Your task to perform on an android device: turn on priority inbox in the gmail app Image 0: 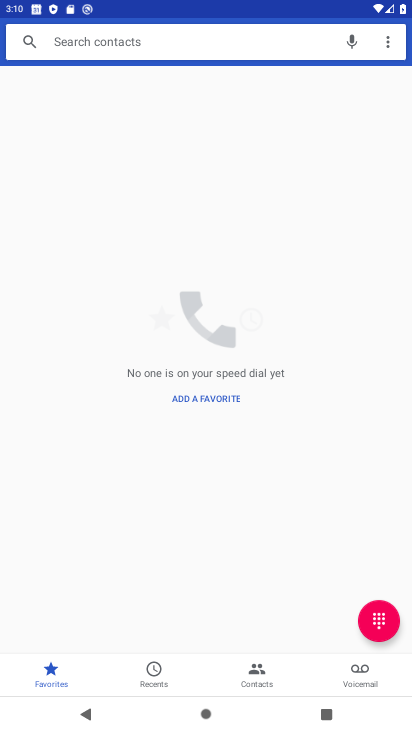
Step 0: press home button
Your task to perform on an android device: turn on priority inbox in the gmail app Image 1: 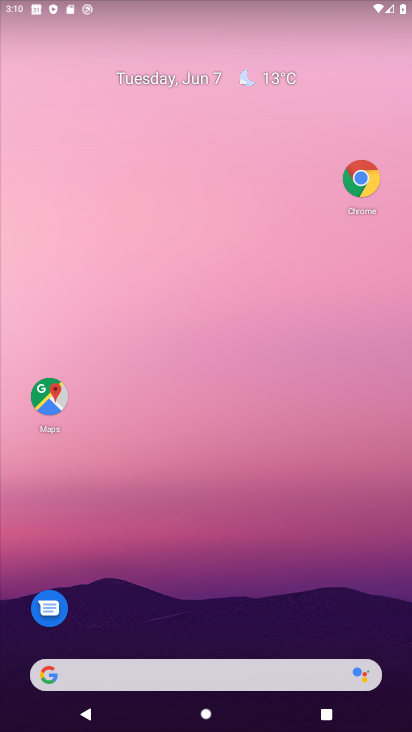
Step 1: drag from (178, 640) to (284, 175)
Your task to perform on an android device: turn on priority inbox in the gmail app Image 2: 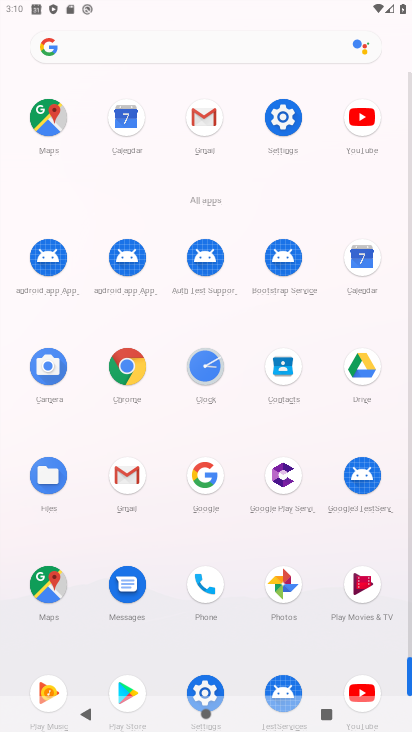
Step 2: click (134, 461)
Your task to perform on an android device: turn on priority inbox in the gmail app Image 3: 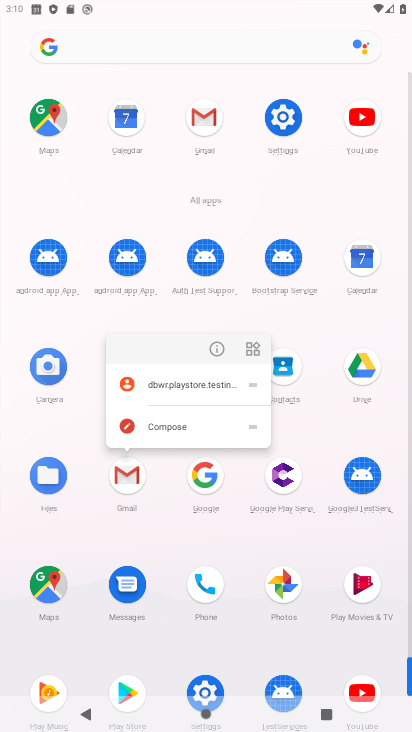
Step 3: click (139, 475)
Your task to perform on an android device: turn on priority inbox in the gmail app Image 4: 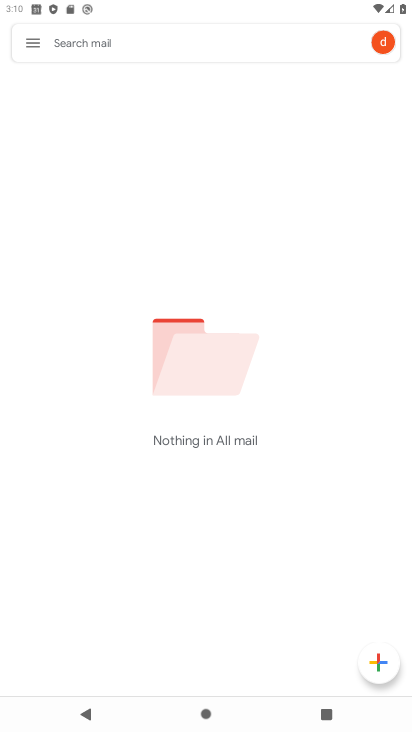
Step 4: click (43, 54)
Your task to perform on an android device: turn on priority inbox in the gmail app Image 5: 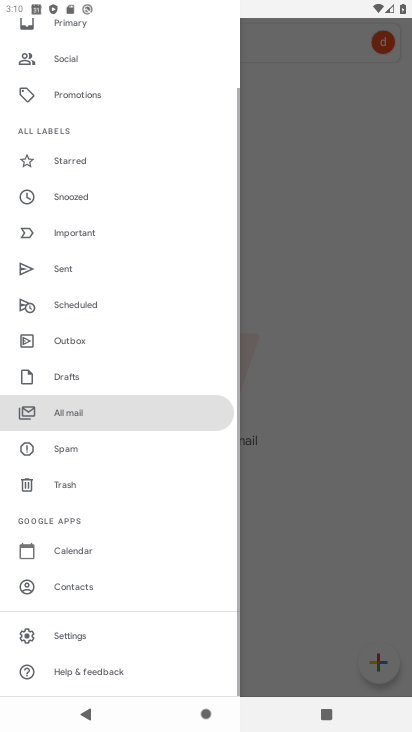
Step 5: drag from (38, 684) to (195, 238)
Your task to perform on an android device: turn on priority inbox in the gmail app Image 6: 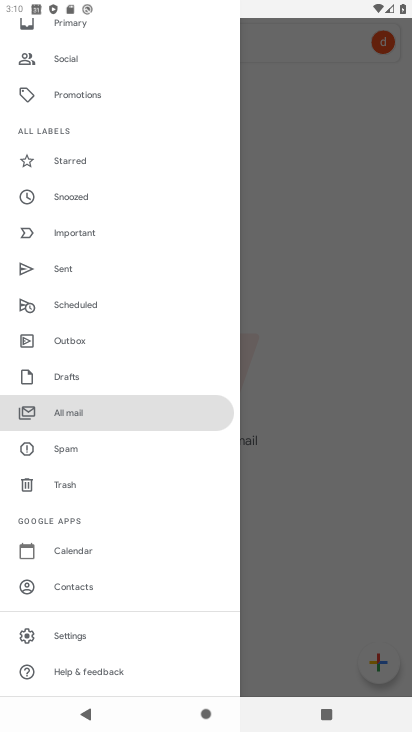
Step 6: click (123, 636)
Your task to perform on an android device: turn on priority inbox in the gmail app Image 7: 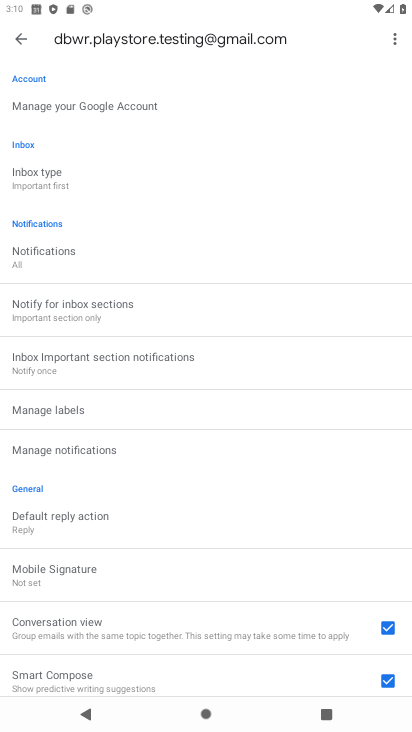
Step 7: click (62, 175)
Your task to perform on an android device: turn on priority inbox in the gmail app Image 8: 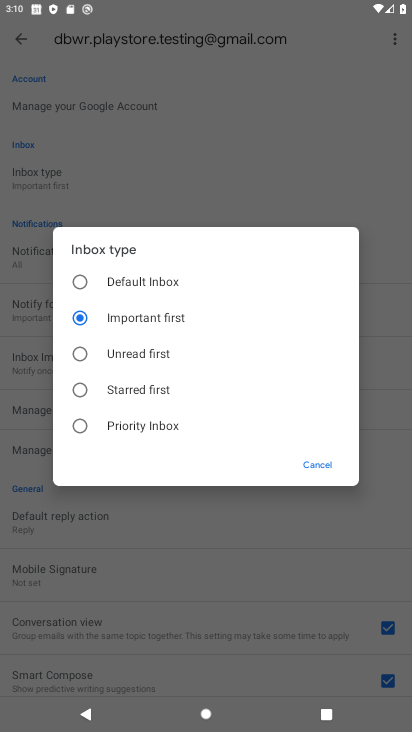
Step 8: click (164, 427)
Your task to perform on an android device: turn on priority inbox in the gmail app Image 9: 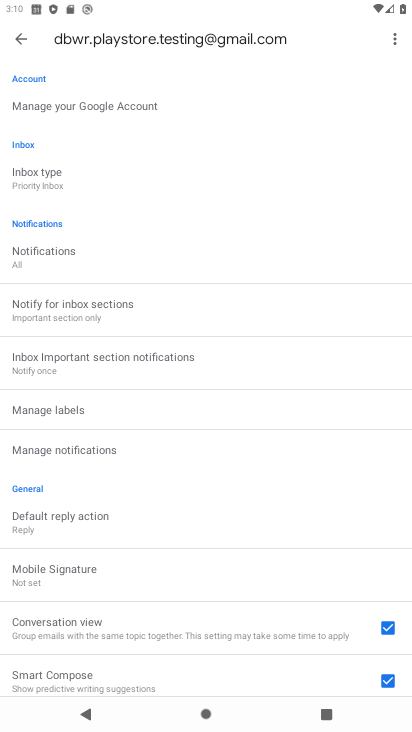
Step 9: task complete